Your task to perform on an android device: toggle wifi Image 0: 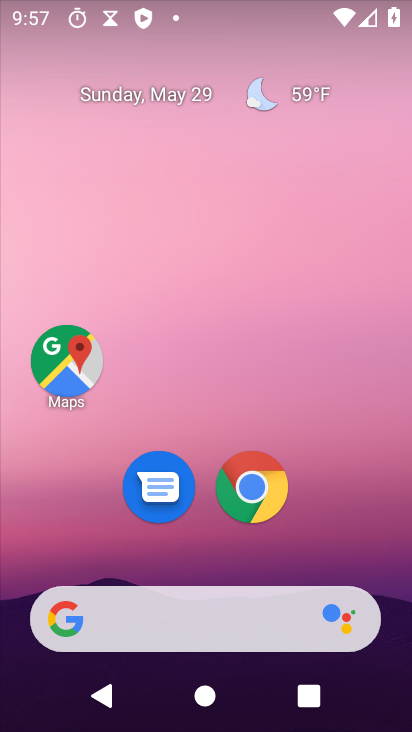
Step 0: drag from (324, 527) to (263, 163)
Your task to perform on an android device: toggle wifi Image 1: 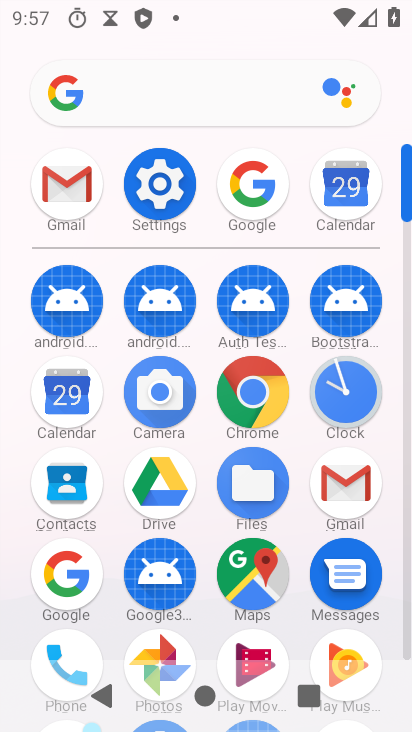
Step 1: click (164, 183)
Your task to perform on an android device: toggle wifi Image 2: 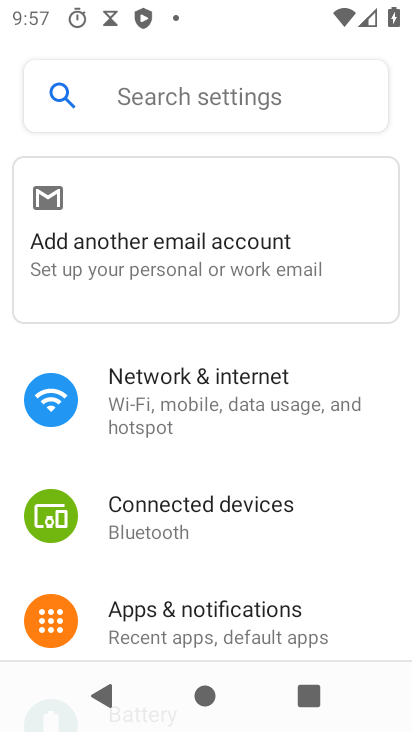
Step 2: click (196, 413)
Your task to perform on an android device: toggle wifi Image 3: 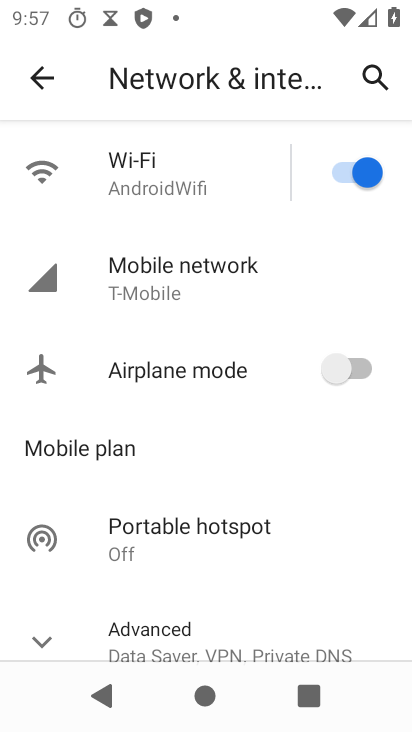
Step 3: click (340, 180)
Your task to perform on an android device: toggle wifi Image 4: 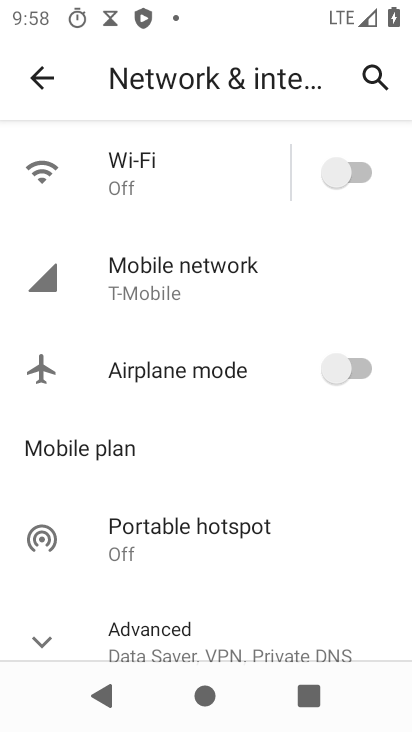
Step 4: task complete